Your task to perform on an android device: change the clock display to digital Image 0: 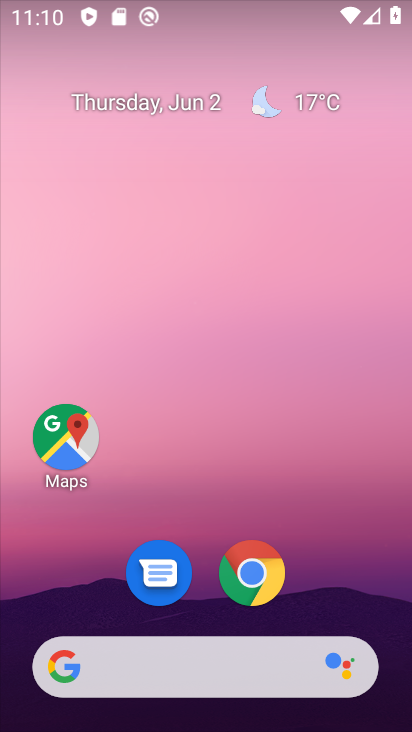
Step 0: task complete